Your task to perform on an android device: Search for beats solo 3 on target, select the first entry, and add it to the cart. Image 0: 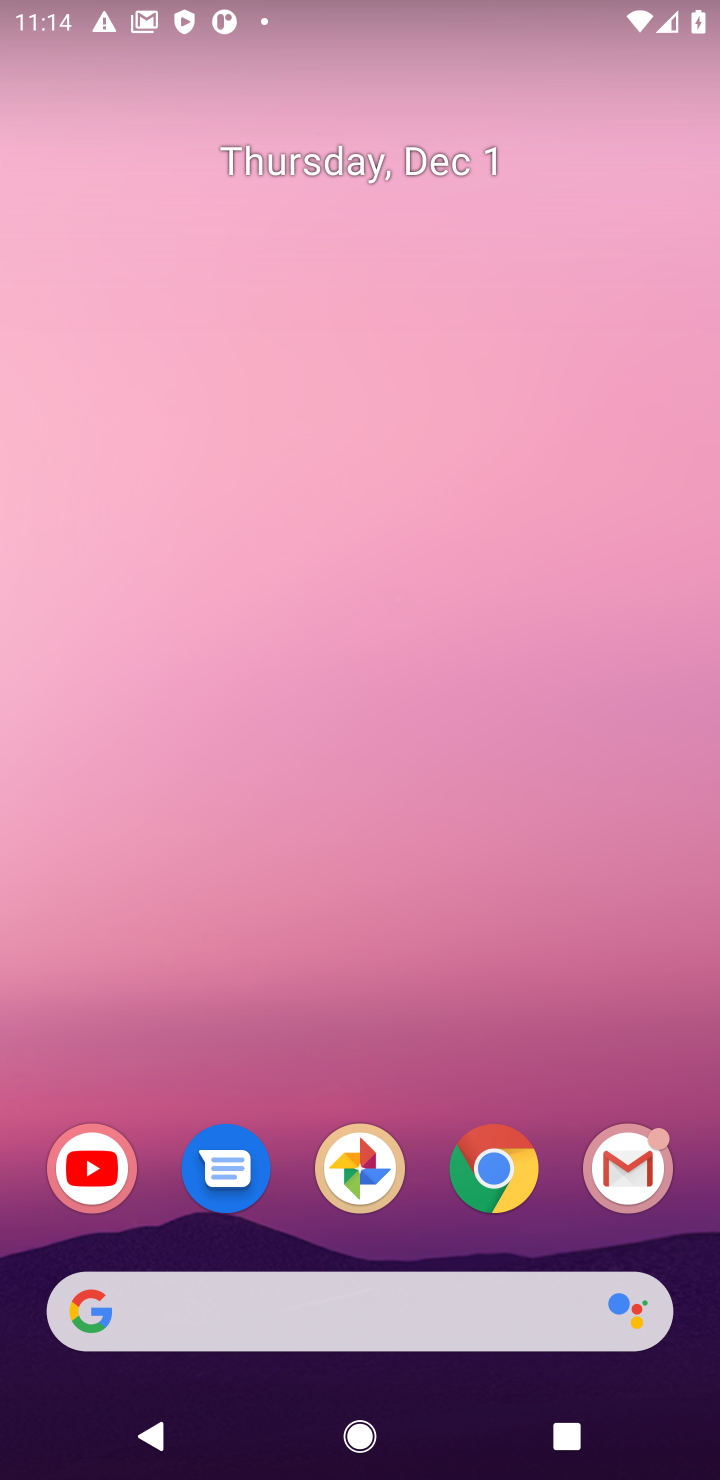
Step 0: click (508, 1168)
Your task to perform on an android device: Search for beats solo 3 on target, select the first entry, and add it to the cart. Image 1: 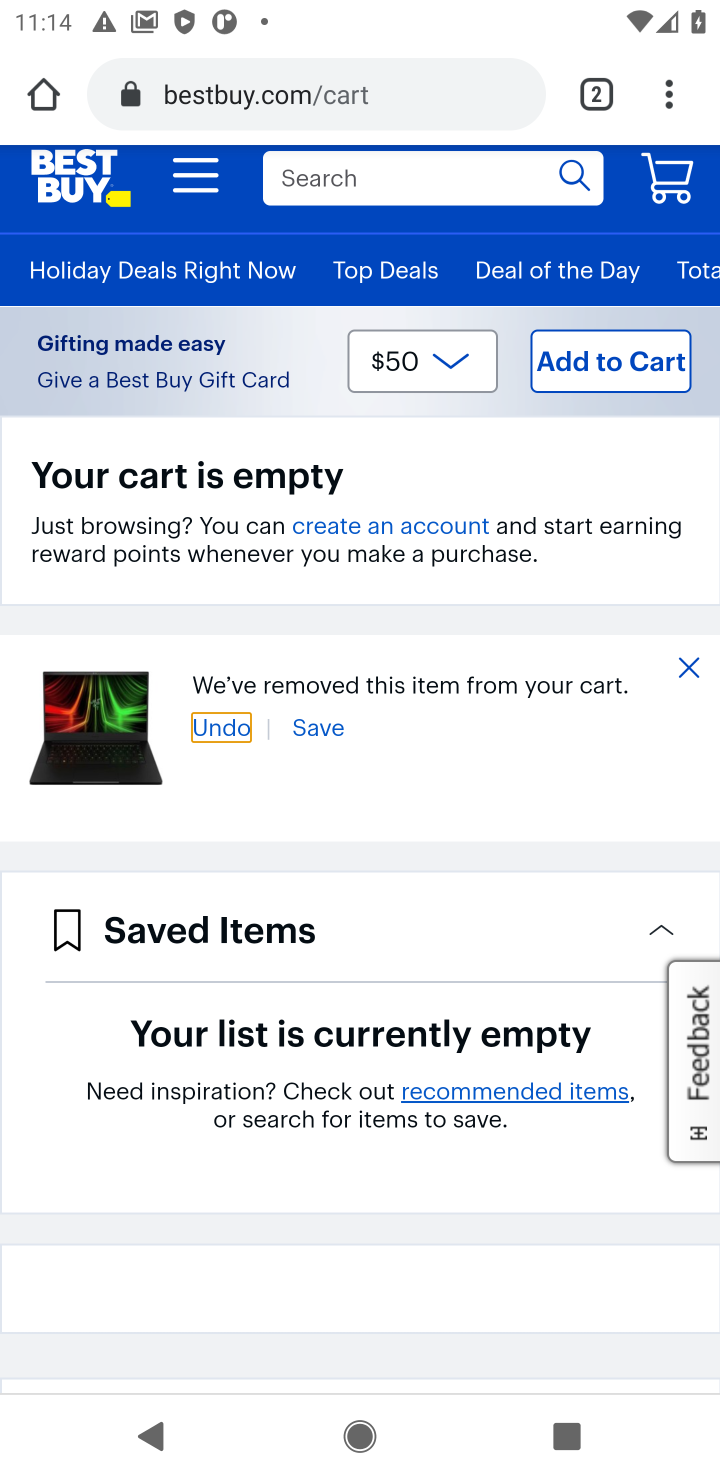
Step 1: click (295, 98)
Your task to perform on an android device: Search for beats solo 3 on target, select the first entry, and add it to the cart. Image 2: 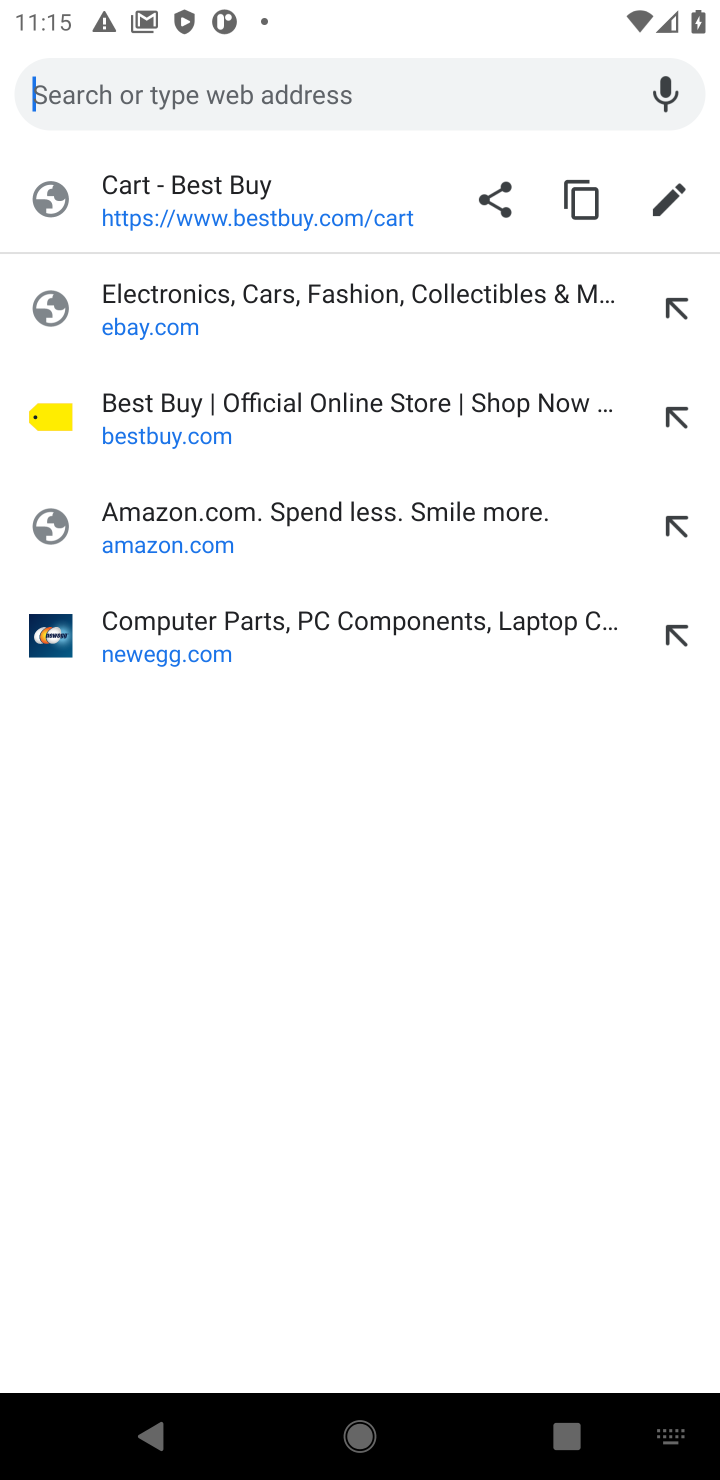
Step 2: type "target.com"
Your task to perform on an android device: Search for beats solo 3 on target, select the first entry, and add it to the cart. Image 3: 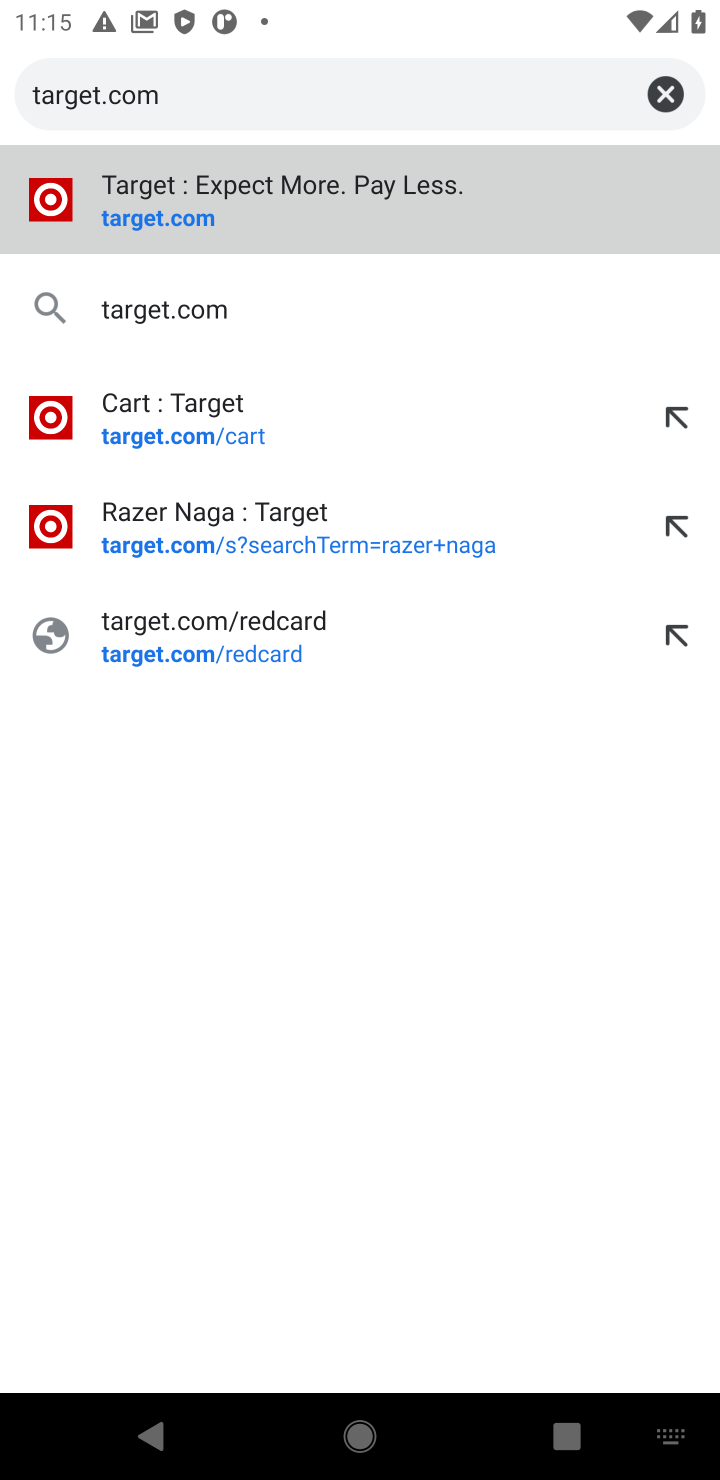
Step 3: click (190, 222)
Your task to perform on an android device: Search for beats solo 3 on target, select the first entry, and add it to the cart. Image 4: 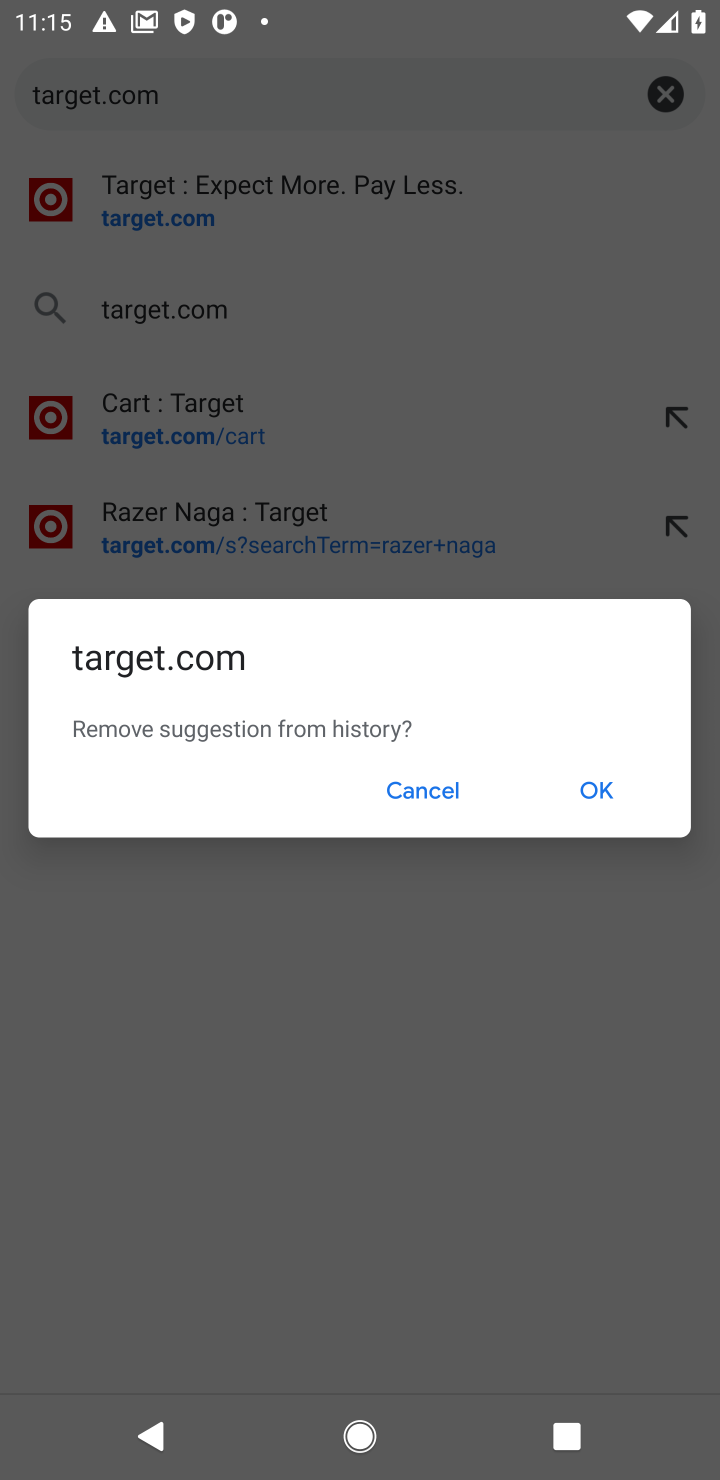
Step 4: click (427, 795)
Your task to perform on an android device: Search for beats solo 3 on target, select the first entry, and add it to the cart. Image 5: 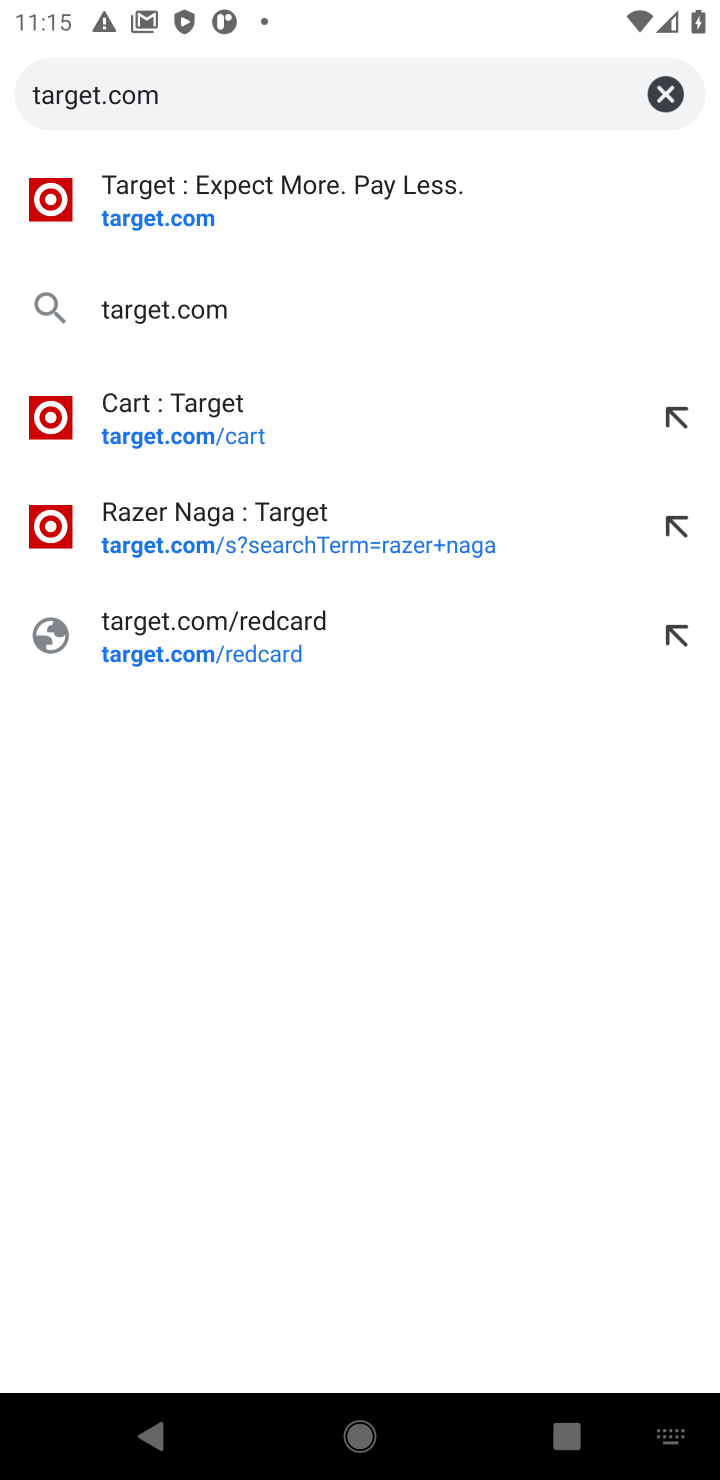
Step 5: click (167, 213)
Your task to perform on an android device: Search for beats solo 3 on target, select the first entry, and add it to the cart. Image 6: 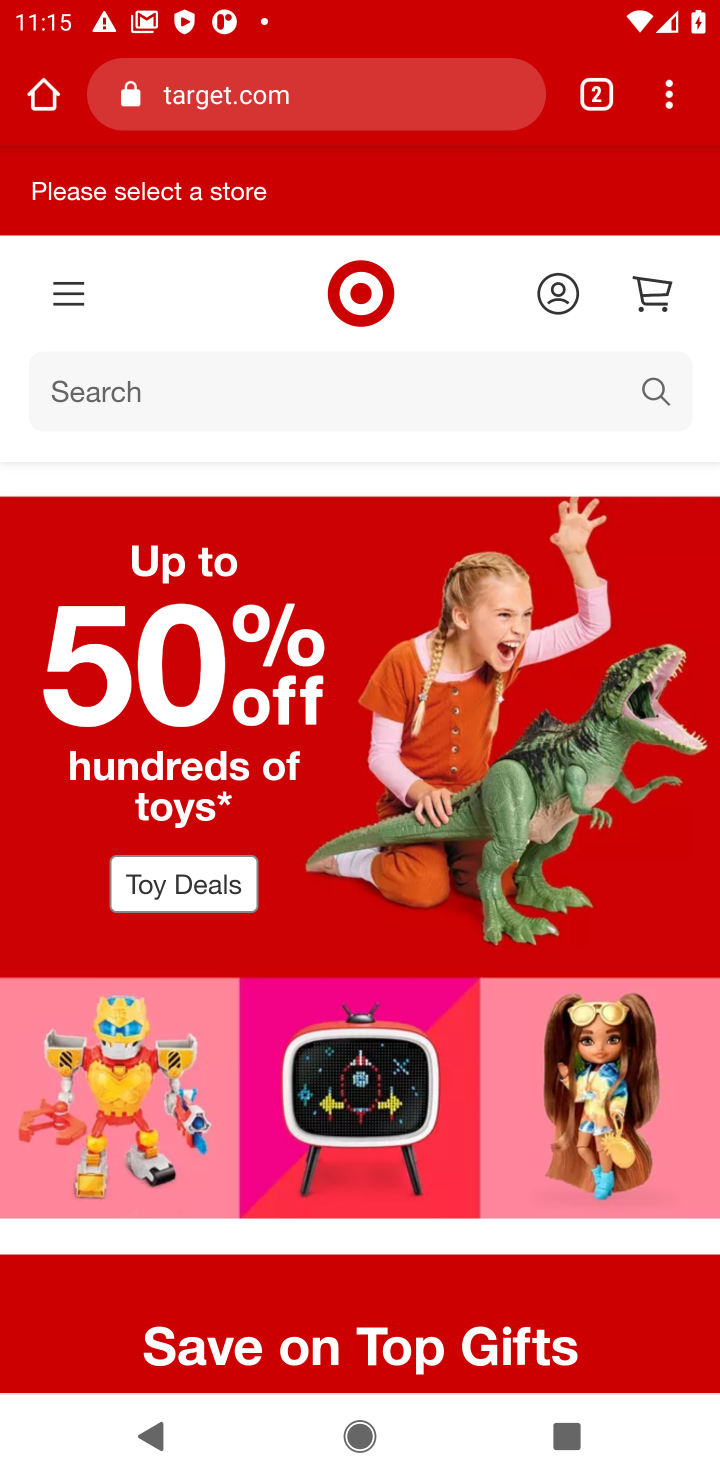
Step 6: click (94, 403)
Your task to perform on an android device: Search for beats solo 3 on target, select the first entry, and add it to the cart. Image 7: 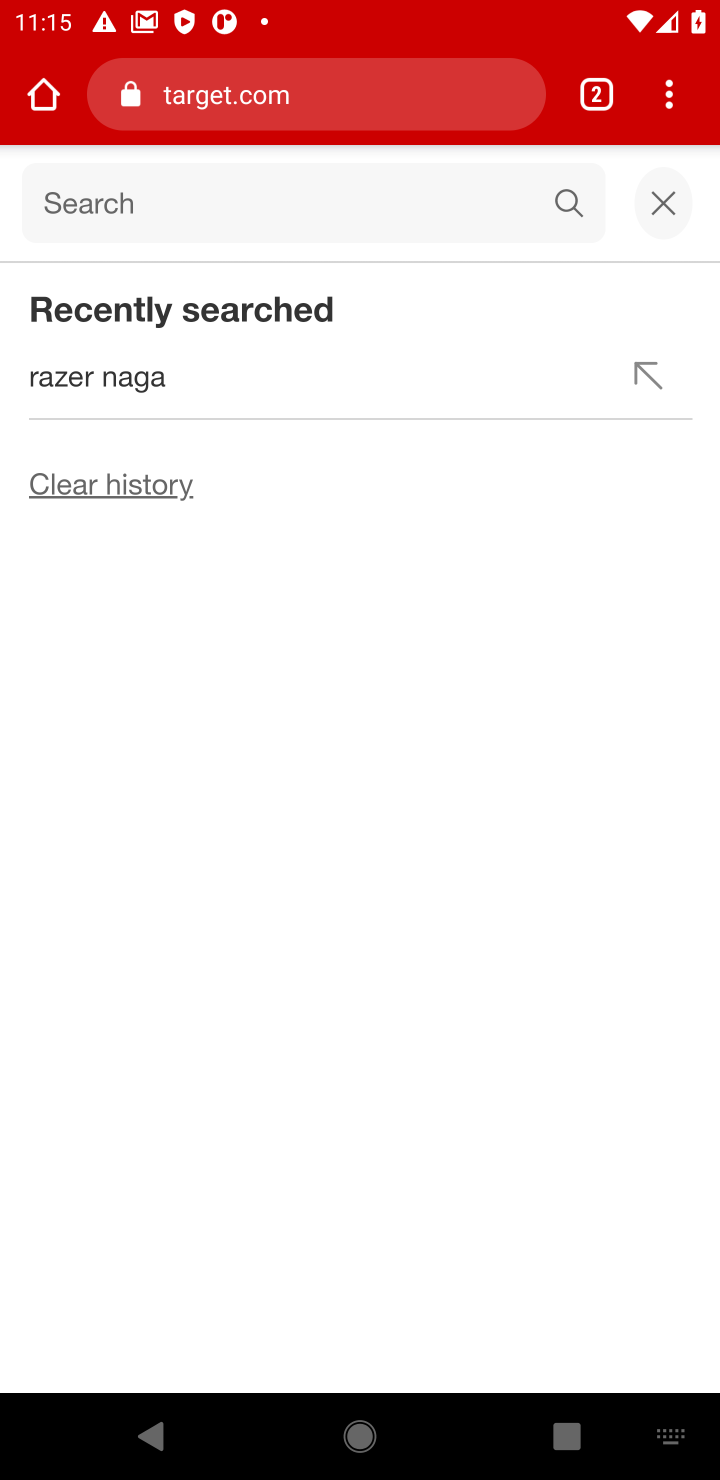
Step 7: click (130, 205)
Your task to perform on an android device: Search for beats solo 3 on target, select the first entry, and add it to the cart. Image 8: 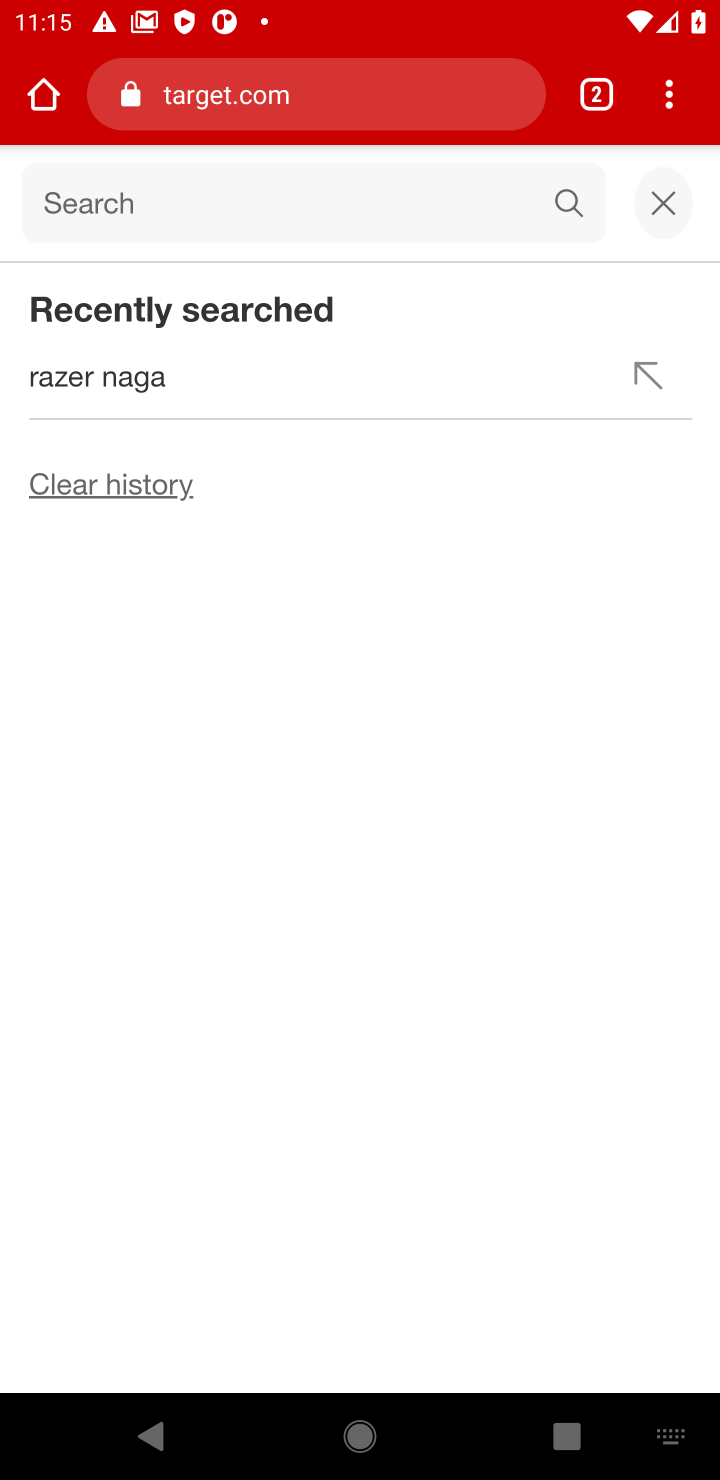
Step 8: type "beats solo 3"
Your task to perform on an android device: Search for beats solo 3 on target, select the first entry, and add it to the cart. Image 9: 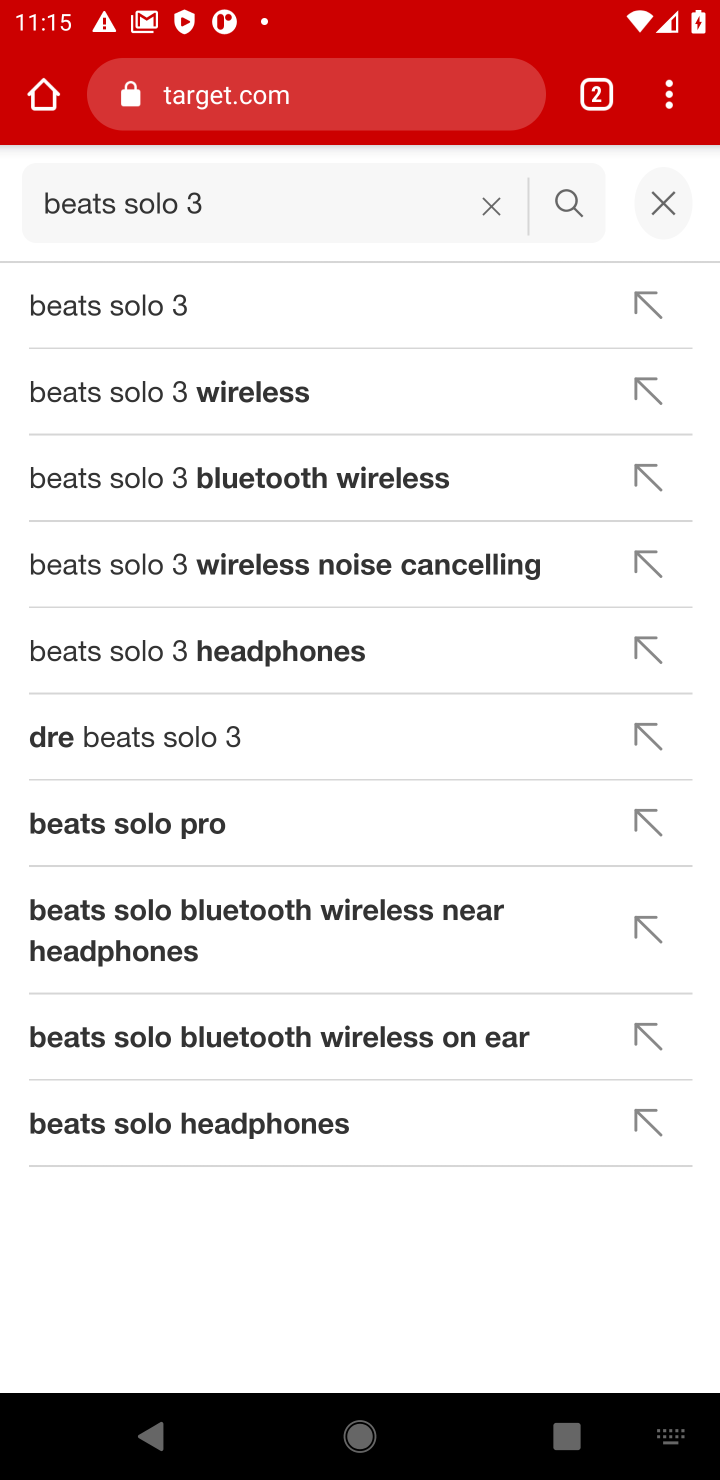
Step 9: click (144, 313)
Your task to perform on an android device: Search for beats solo 3 on target, select the first entry, and add it to the cart. Image 10: 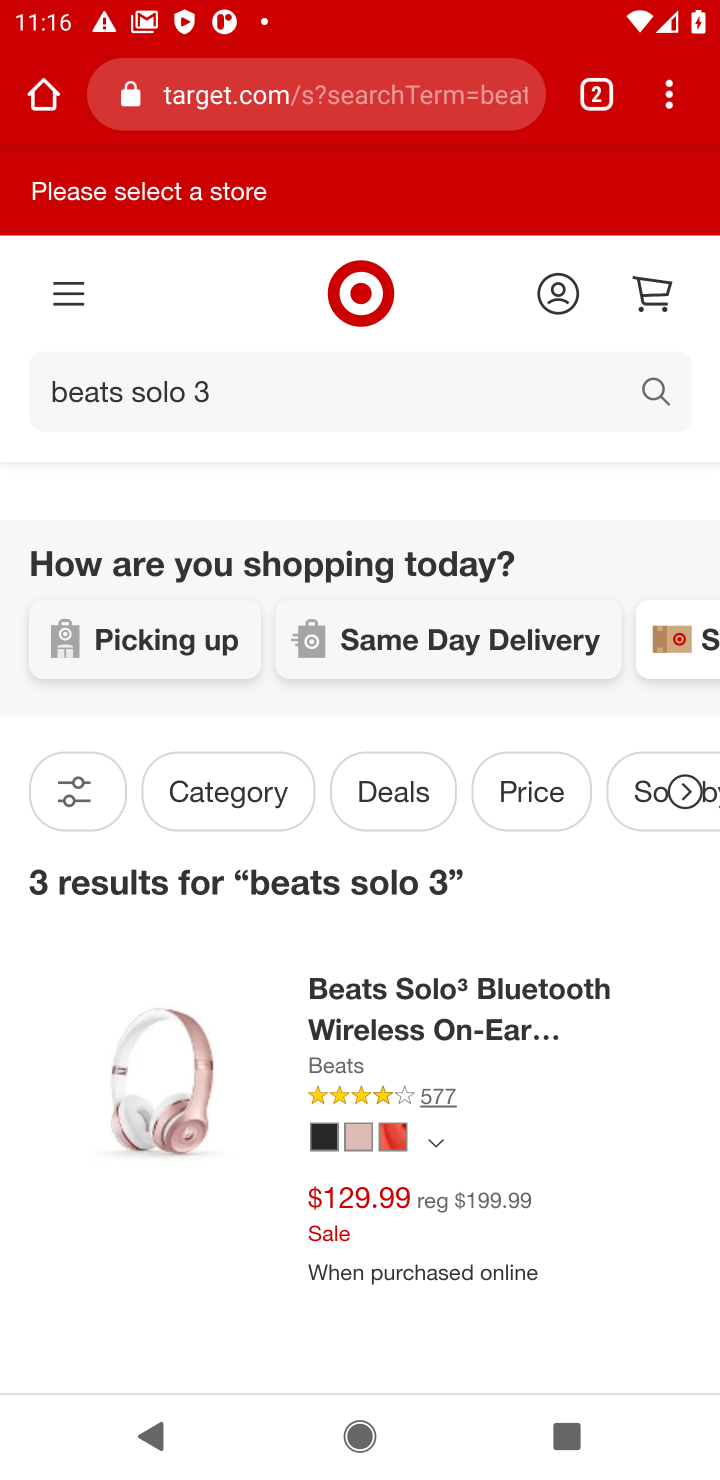
Step 10: drag from (213, 910) to (251, 404)
Your task to perform on an android device: Search for beats solo 3 on target, select the first entry, and add it to the cart. Image 11: 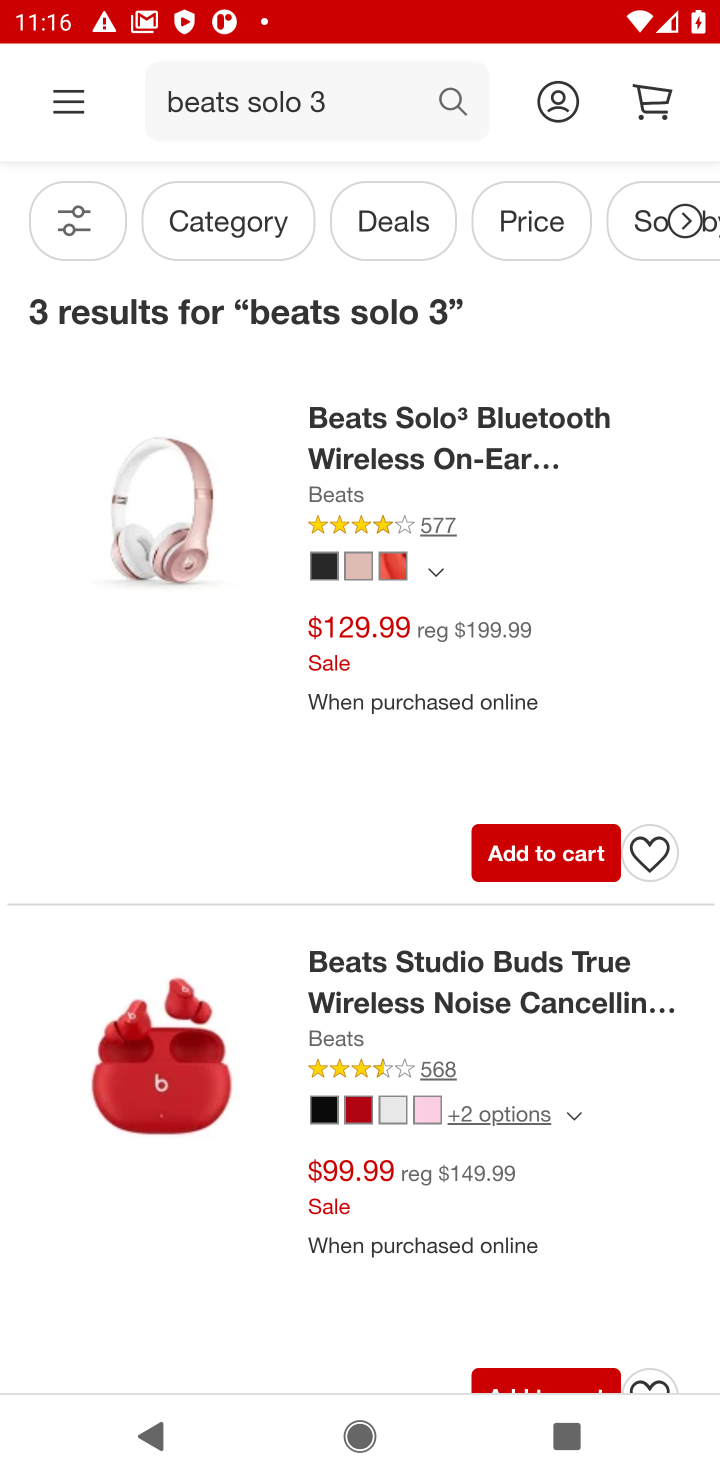
Step 11: click (553, 857)
Your task to perform on an android device: Search for beats solo 3 on target, select the first entry, and add it to the cart. Image 12: 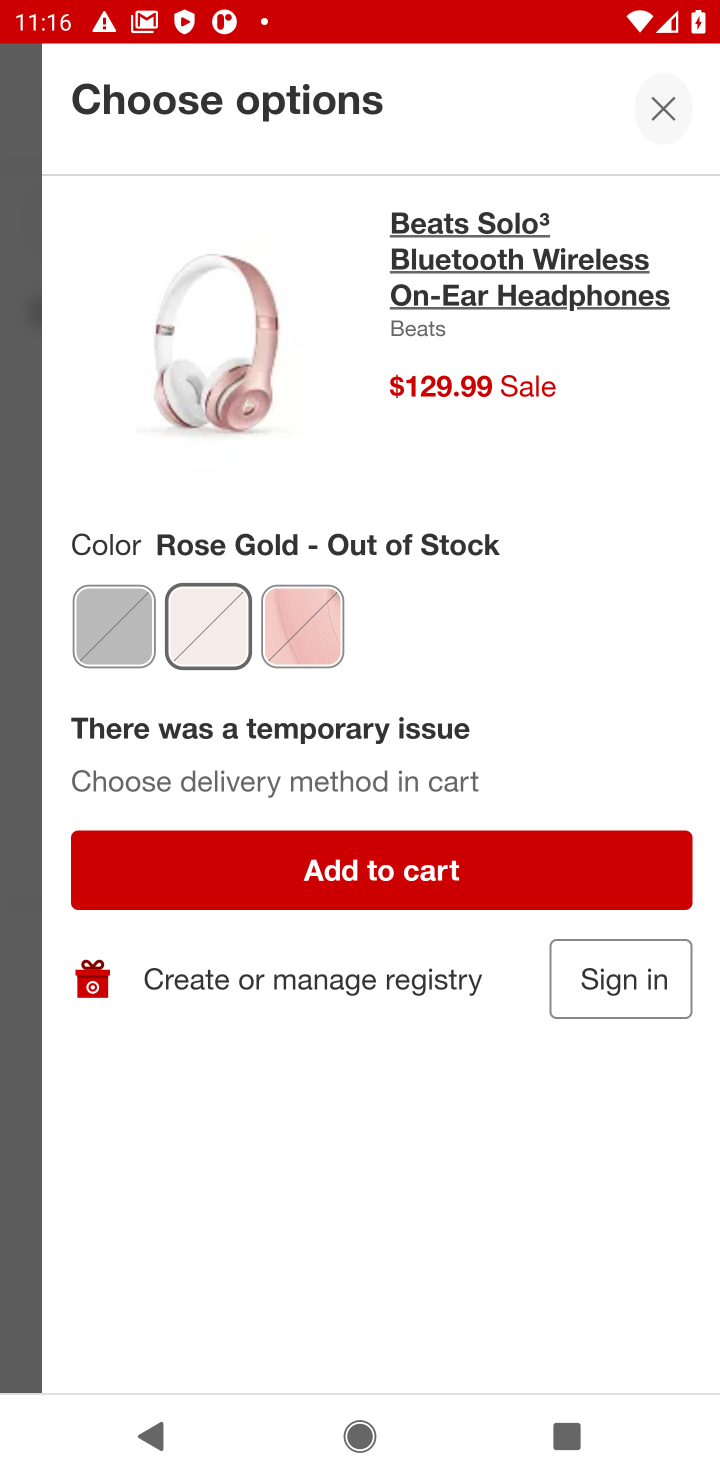
Step 12: click (405, 870)
Your task to perform on an android device: Search for beats solo 3 on target, select the first entry, and add it to the cart. Image 13: 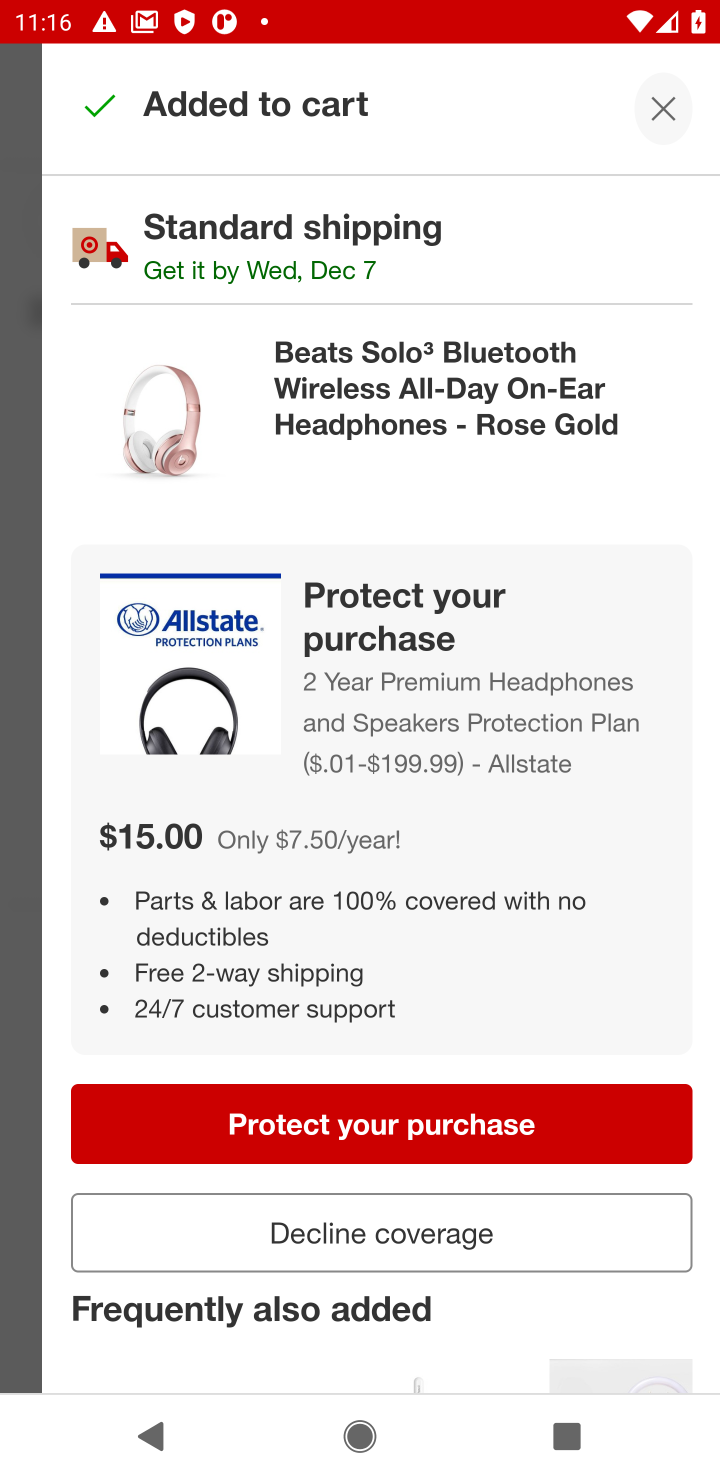
Step 13: task complete